Your task to perform on an android device: Open Maps and search for coffee Image 0: 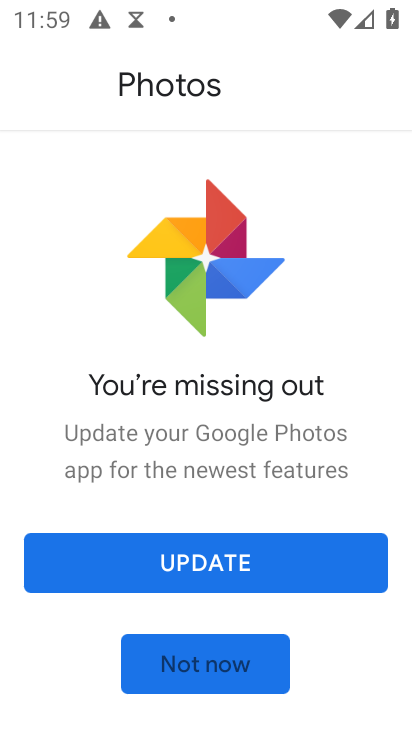
Step 0: press home button
Your task to perform on an android device: Open Maps and search for coffee Image 1: 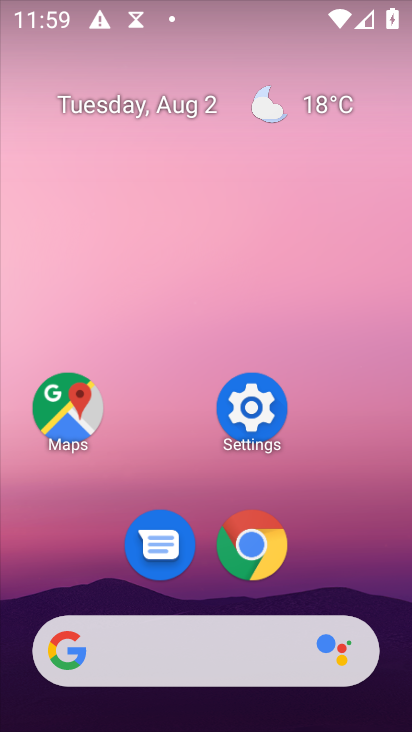
Step 1: click (66, 420)
Your task to perform on an android device: Open Maps and search for coffee Image 2: 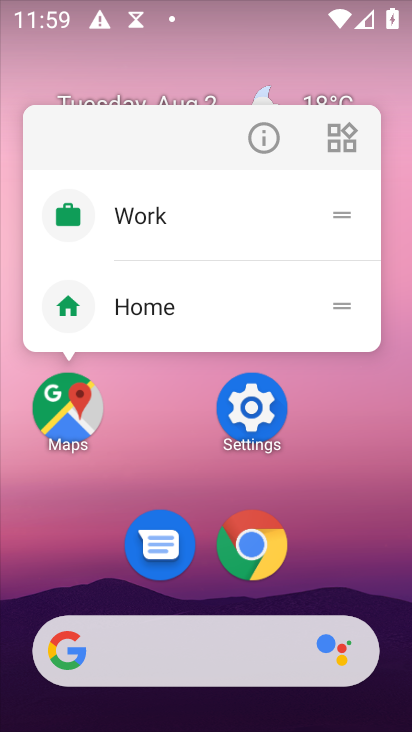
Step 2: click (67, 412)
Your task to perform on an android device: Open Maps and search for coffee Image 3: 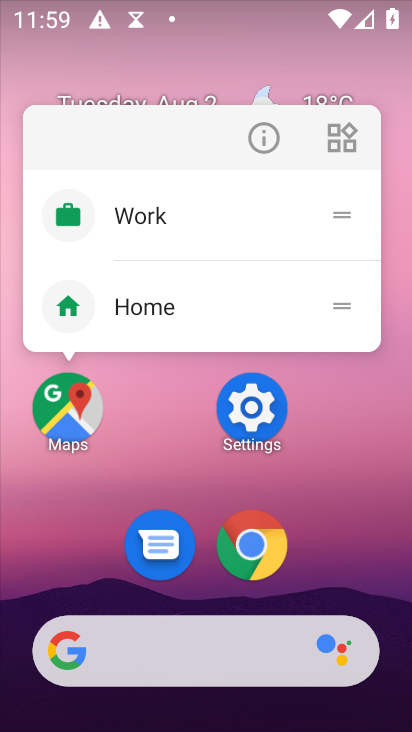
Step 3: click (67, 413)
Your task to perform on an android device: Open Maps and search for coffee Image 4: 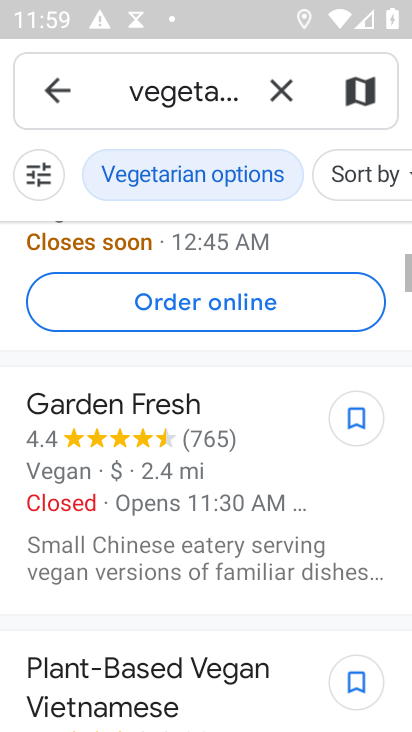
Step 4: click (280, 86)
Your task to perform on an android device: Open Maps and search for coffee Image 5: 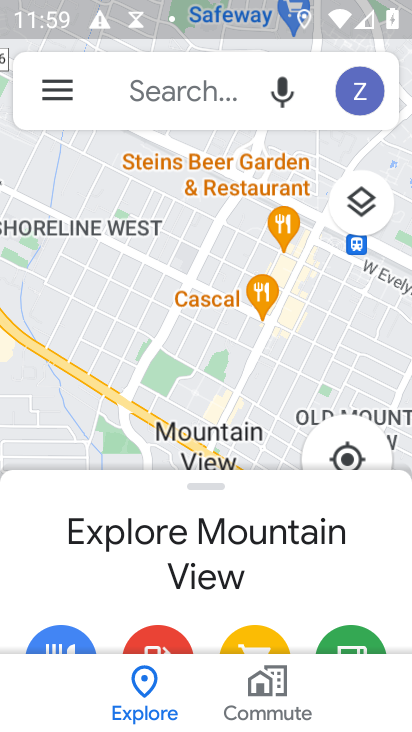
Step 5: click (174, 80)
Your task to perform on an android device: Open Maps and search for coffee Image 6: 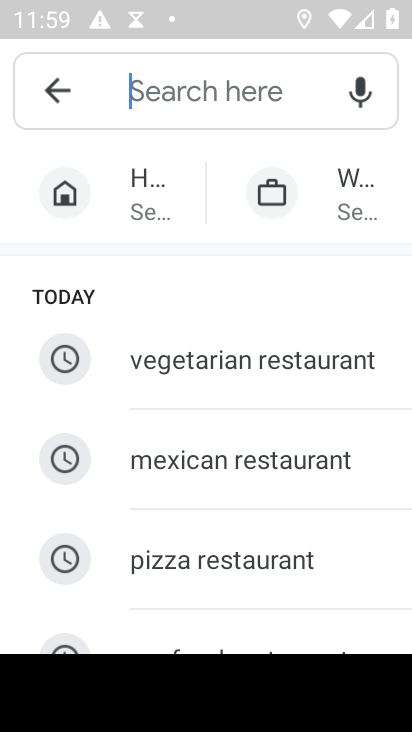
Step 6: drag from (245, 601) to (297, 331)
Your task to perform on an android device: Open Maps and search for coffee Image 7: 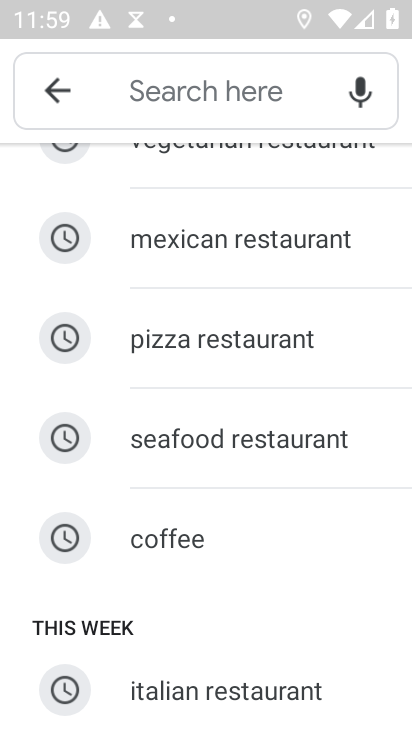
Step 7: click (183, 543)
Your task to perform on an android device: Open Maps and search for coffee Image 8: 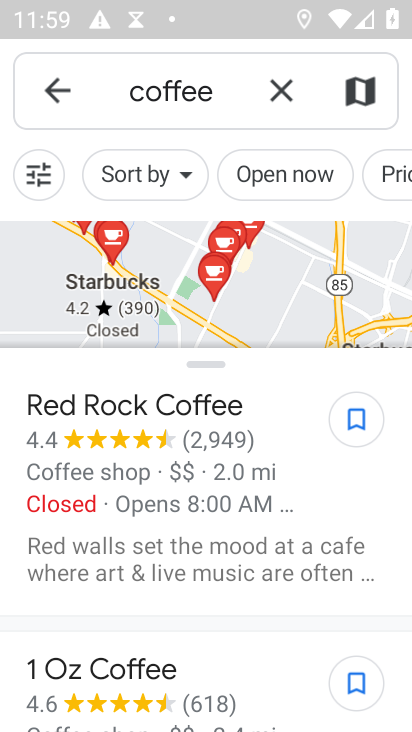
Step 8: task complete